Your task to perform on an android device: Open network settings Image 0: 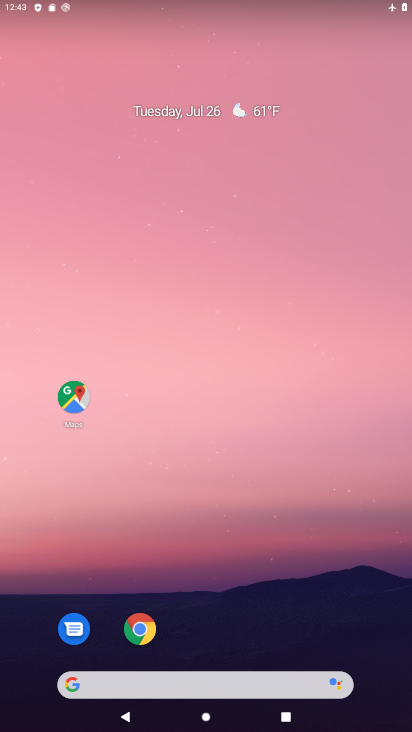
Step 0: drag from (203, 666) to (136, 22)
Your task to perform on an android device: Open network settings Image 1: 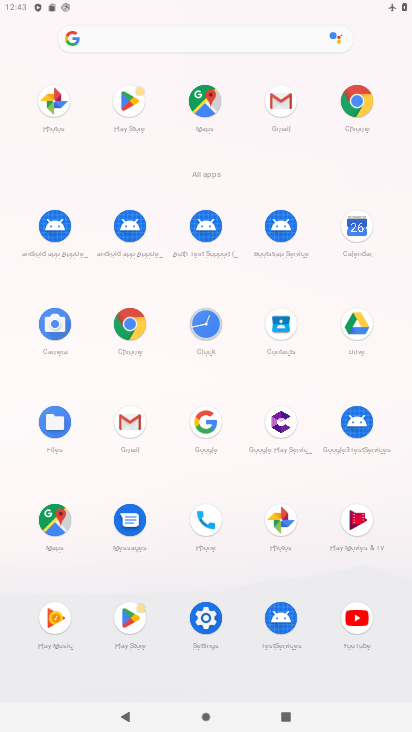
Step 1: click (202, 620)
Your task to perform on an android device: Open network settings Image 2: 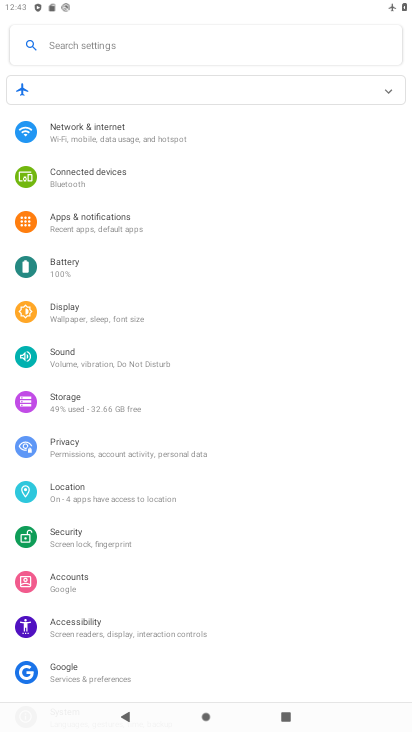
Step 2: click (120, 123)
Your task to perform on an android device: Open network settings Image 3: 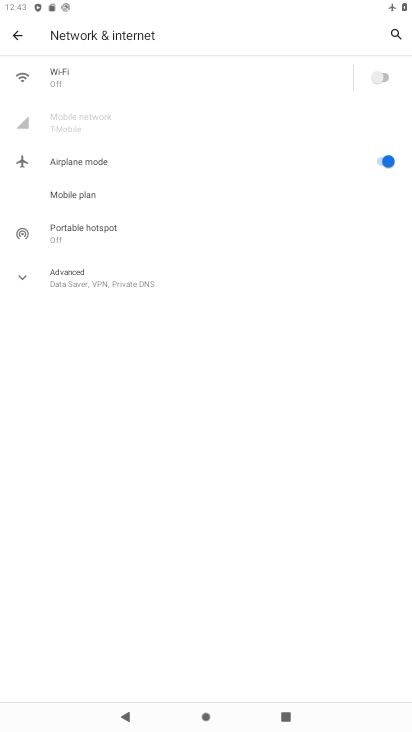
Step 3: task complete